Your task to perform on an android device: turn on the 12-hour format for clock Image 0: 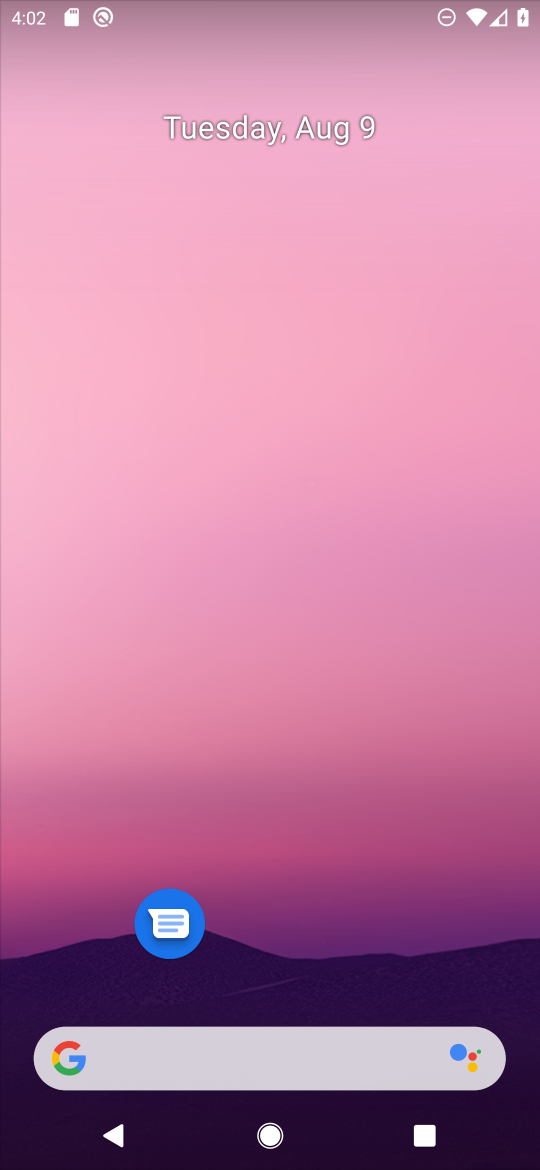
Step 0: drag from (296, 794) to (439, 168)
Your task to perform on an android device: turn on the 12-hour format for clock Image 1: 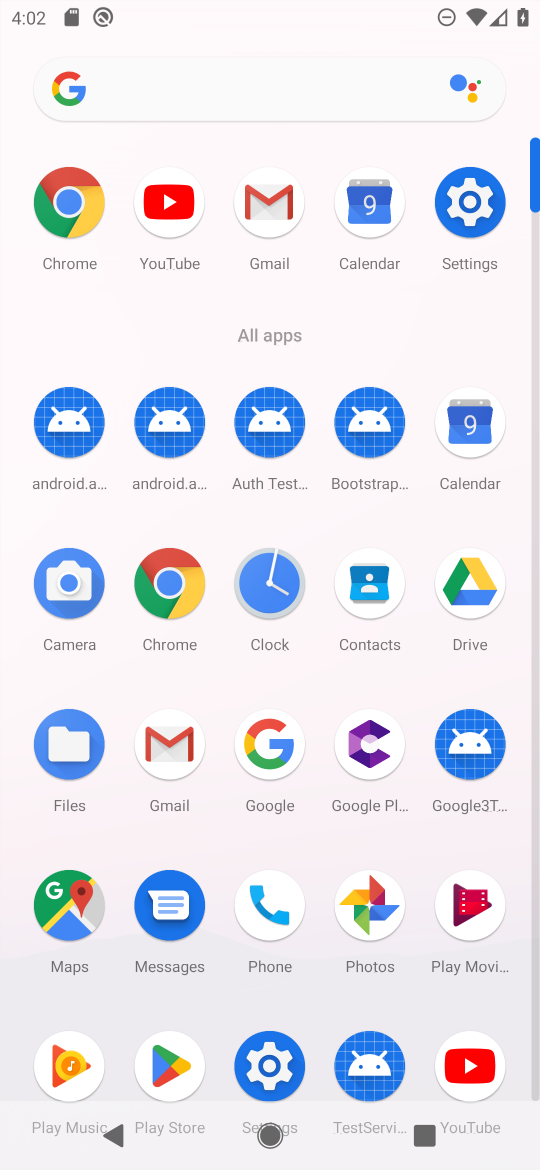
Step 1: click (276, 600)
Your task to perform on an android device: turn on the 12-hour format for clock Image 2: 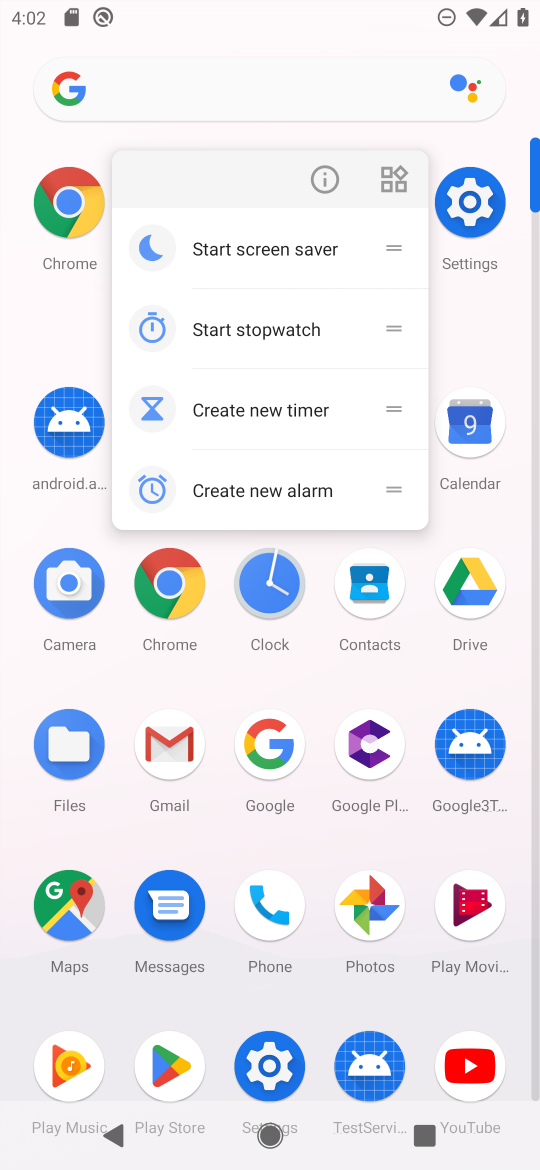
Step 2: click (278, 583)
Your task to perform on an android device: turn on the 12-hour format for clock Image 3: 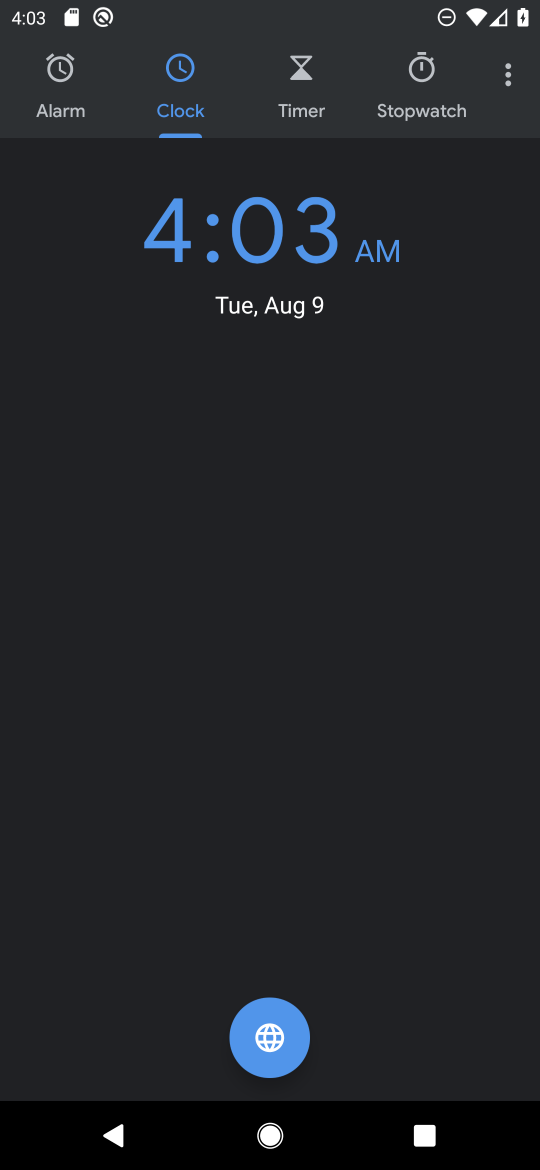
Step 3: click (502, 72)
Your task to perform on an android device: turn on the 12-hour format for clock Image 4: 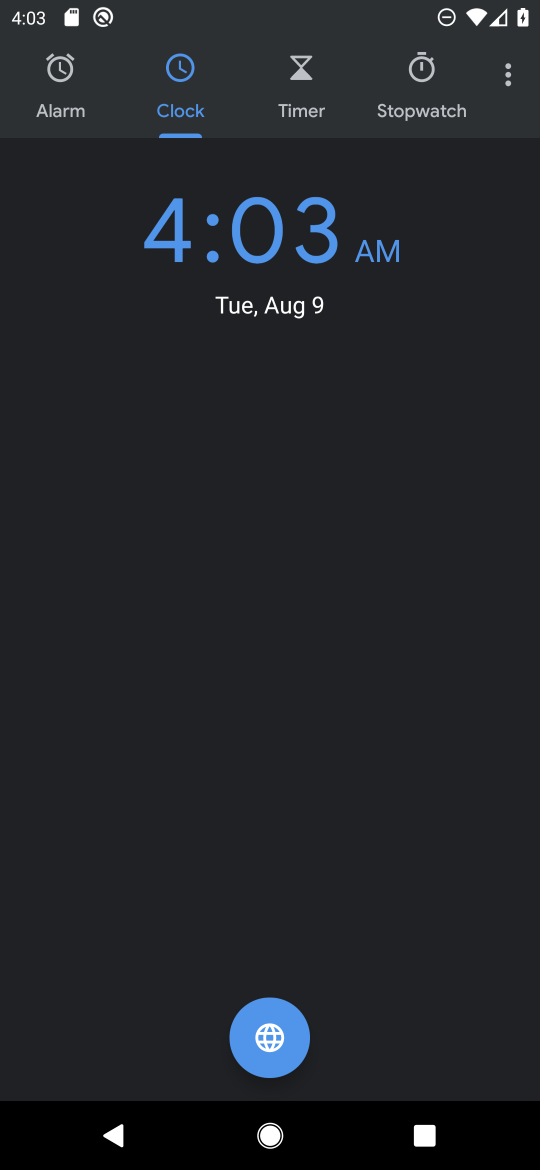
Step 4: click (497, 66)
Your task to perform on an android device: turn on the 12-hour format for clock Image 5: 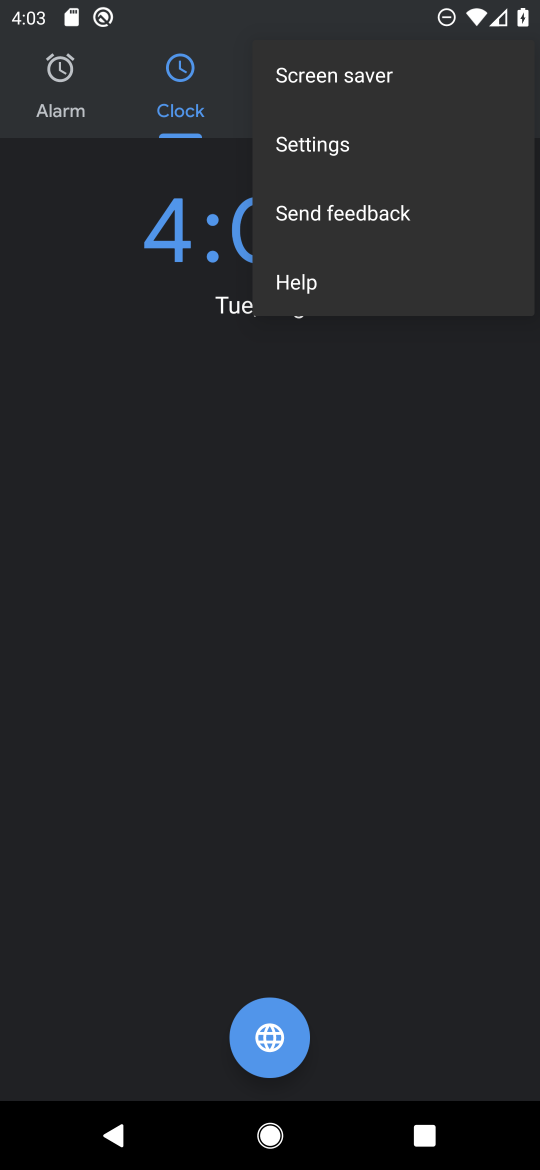
Step 5: click (351, 147)
Your task to perform on an android device: turn on the 12-hour format for clock Image 6: 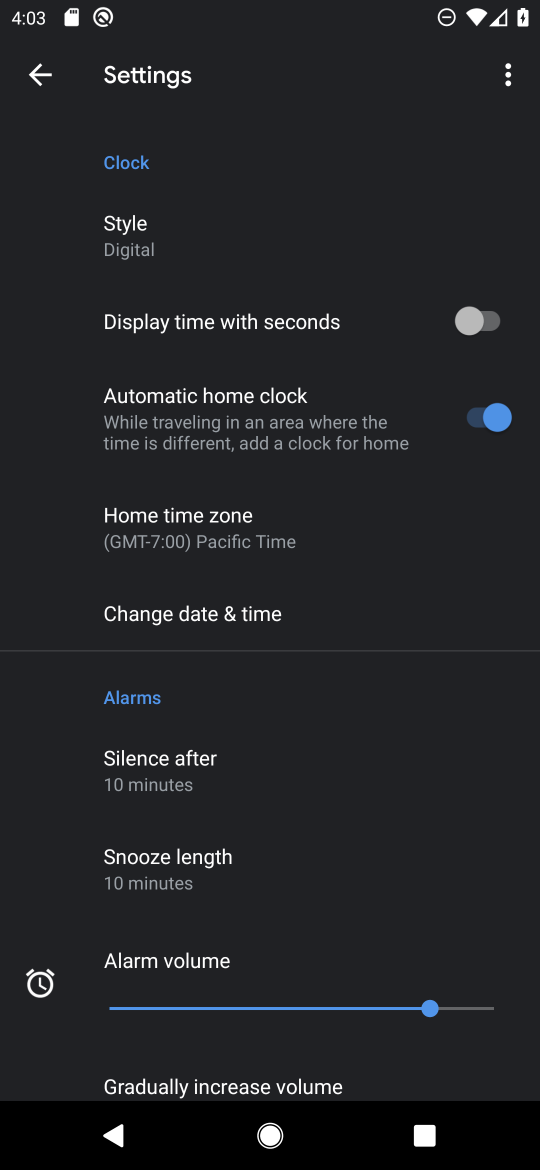
Step 6: click (165, 620)
Your task to perform on an android device: turn on the 12-hour format for clock Image 7: 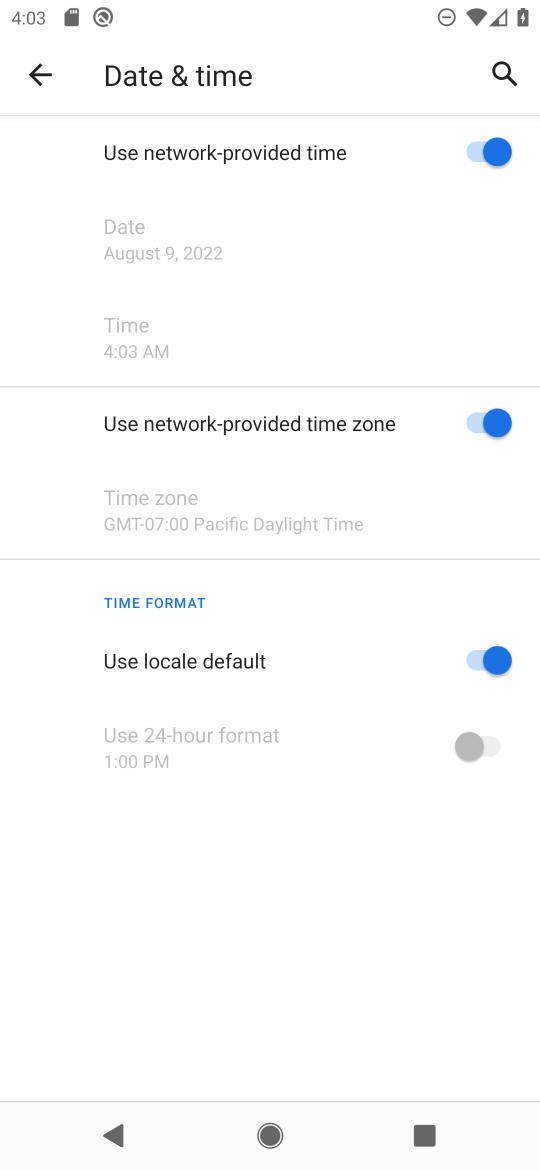
Step 7: task complete